Your task to perform on an android device: change keyboard looks Image 0: 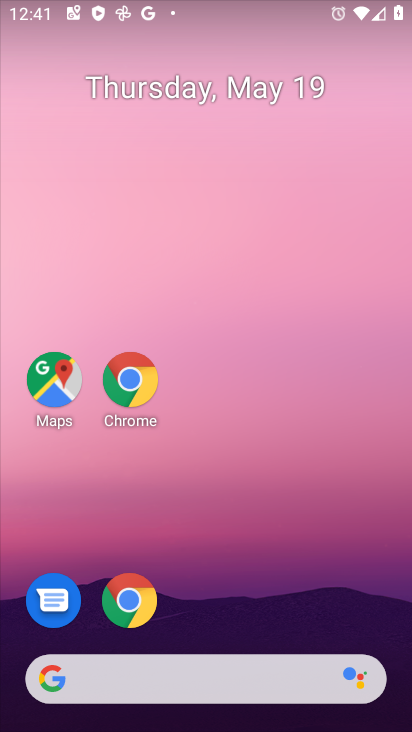
Step 0: drag from (273, 659) to (159, 256)
Your task to perform on an android device: change keyboard looks Image 1: 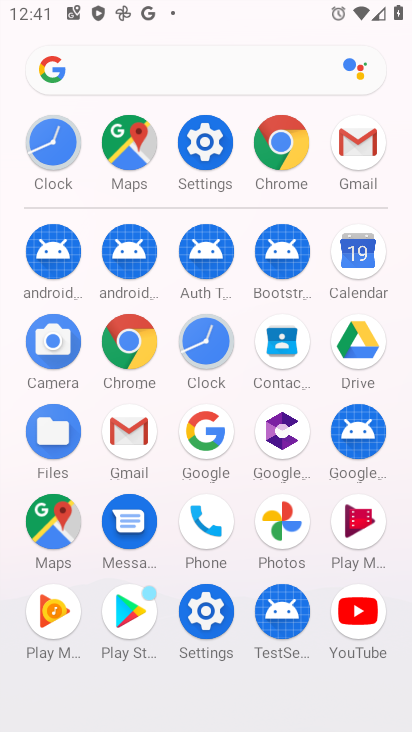
Step 1: click (206, 612)
Your task to perform on an android device: change keyboard looks Image 2: 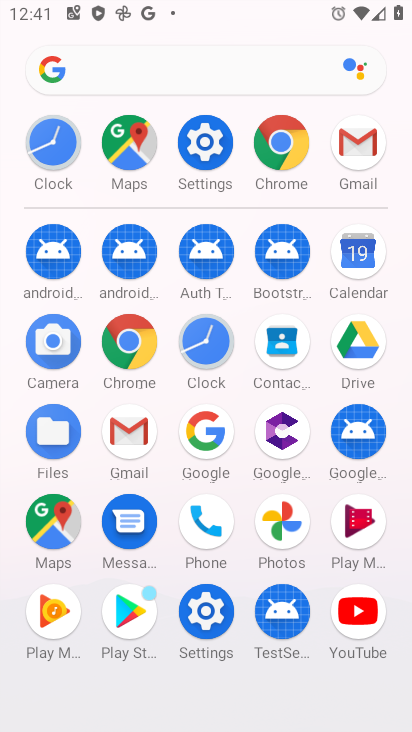
Step 2: click (208, 614)
Your task to perform on an android device: change keyboard looks Image 3: 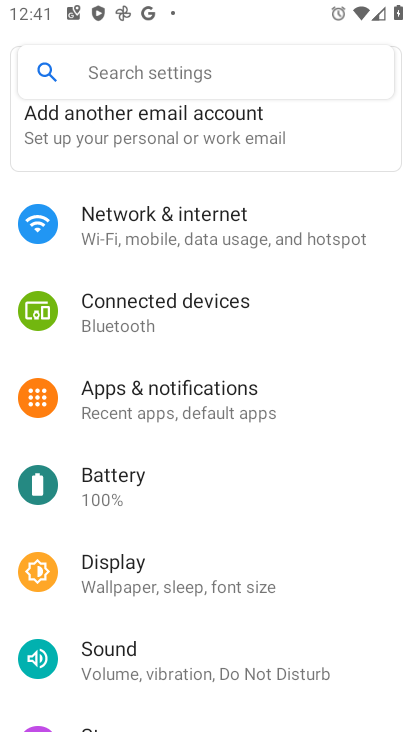
Step 3: drag from (202, 520) to (108, 253)
Your task to perform on an android device: change keyboard looks Image 4: 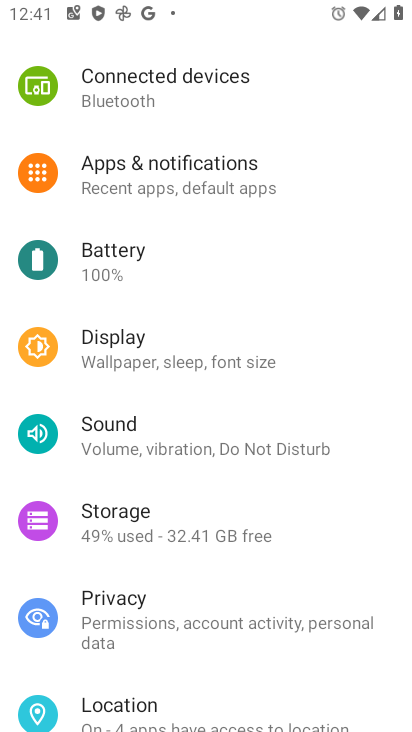
Step 4: drag from (160, 389) to (131, 203)
Your task to perform on an android device: change keyboard looks Image 5: 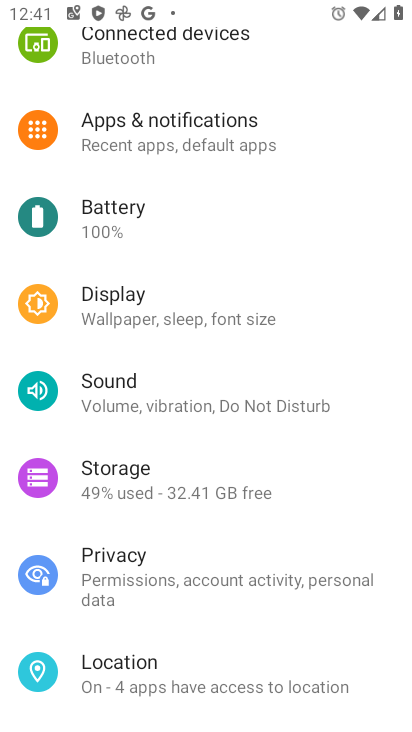
Step 5: drag from (151, 430) to (118, 127)
Your task to perform on an android device: change keyboard looks Image 6: 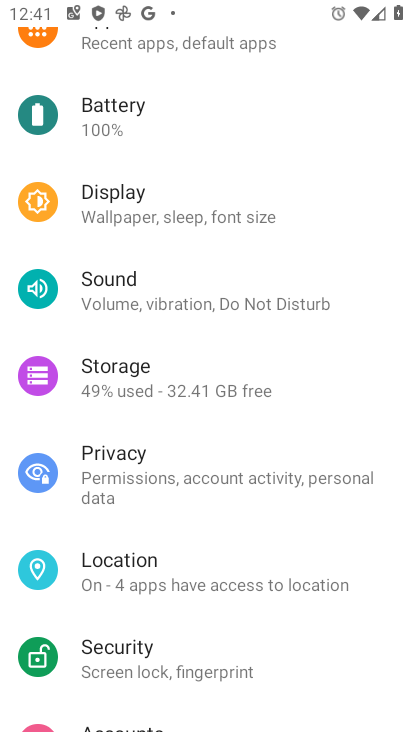
Step 6: drag from (167, 356) to (156, 135)
Your task to perform on an android device: change keyboard looks Image 7: 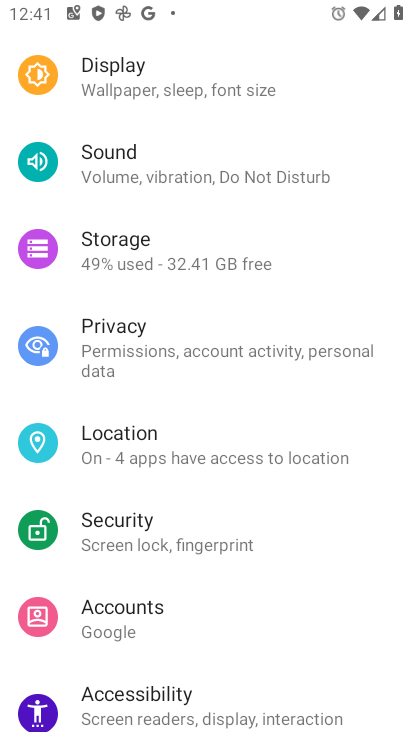
Step 7: drag from (179, 403) to (176, 144)
Your task to perform on an android device: change keyboard looks Image 8: 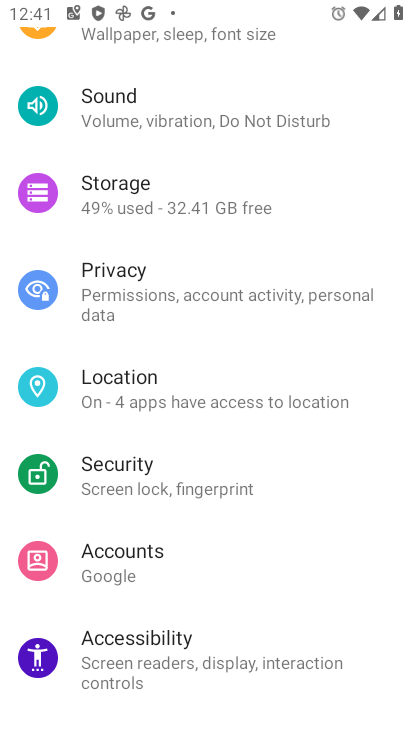
Step 8: drag from (244, 408) to (216, 135)
Your task to perform on an android device: change keyboard looks Image 9: 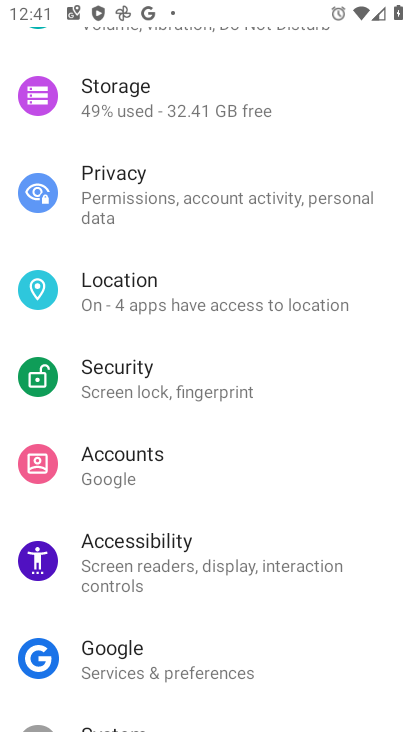
Step 9: drag from (197, 310) to (198, 100)
Your task to perform on an android device: change keyboard looks Image 10: 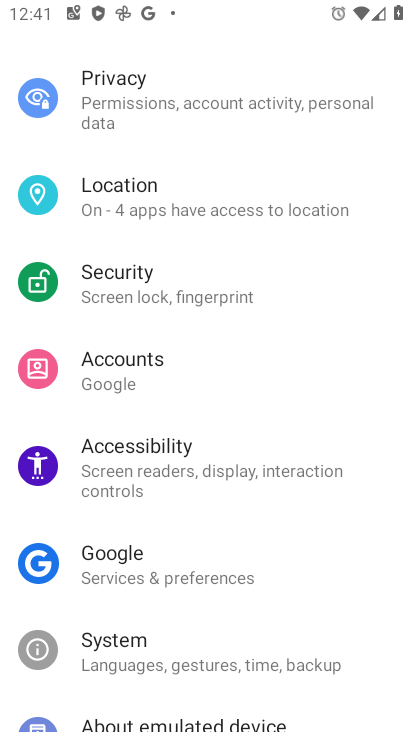
Step 10: drag from (177, 346) to (157, 121)
Your task to perform on an android device: change keyboard looks Image 11: 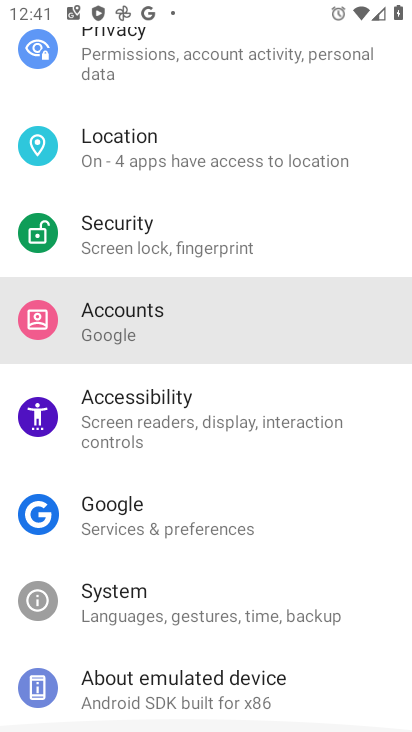
Step 11: drag from (173, 431) to (137, 180)
Your task to perform on an android device: change keyboard looks Image 12: 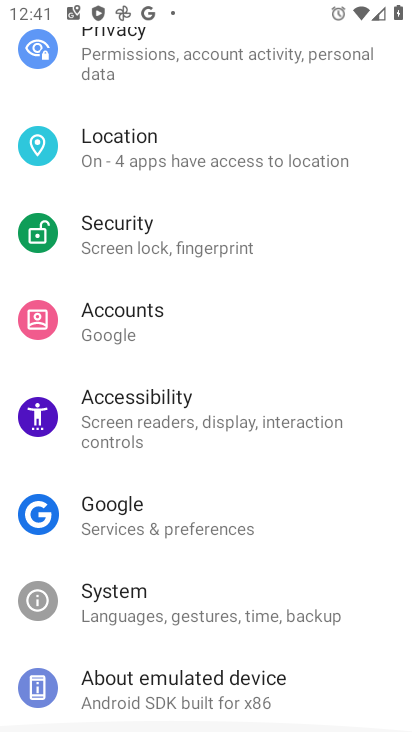
Step 12: drag from (178, 485) to (171, 150)
Your task to perform on an android device: change keyboard looks Image 13: 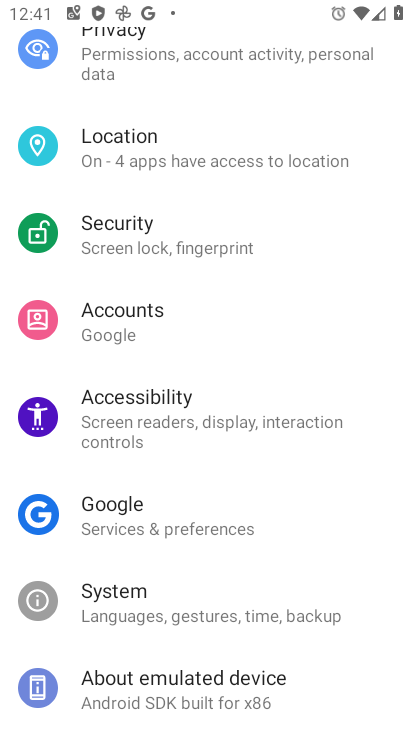
Step 13: click (172, 690)
Your task to perform on an android device: change keyboard looks Image 14: 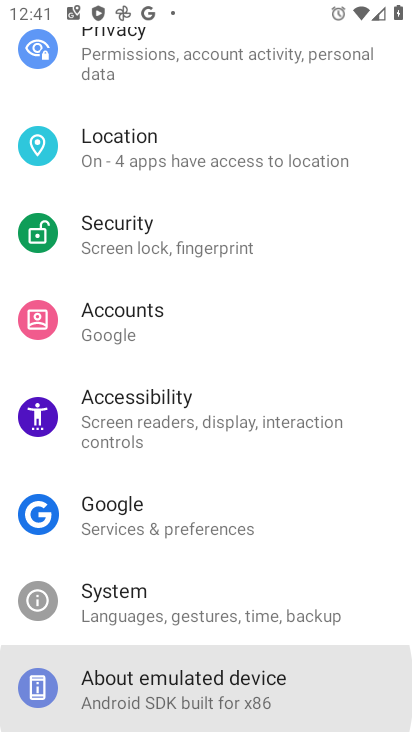
Step 14: click (172, 690)
Your task to perform on an android device: change keyboard looks Image 15: 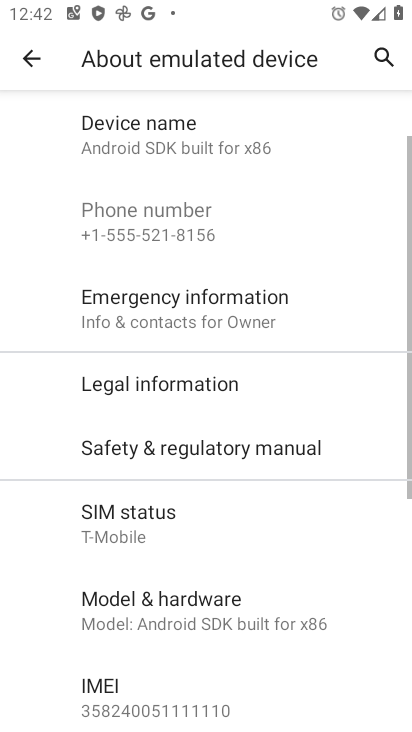
Step 15: click (37, 55)
Your task to perform on an android device: change keyboard looks Image 16: 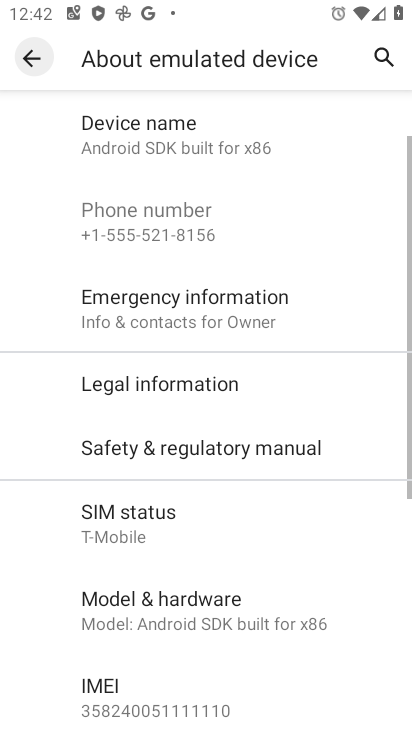
Step 16: click (37, 55)
Your task to perform on an android device: change keyboard looks Image 17: 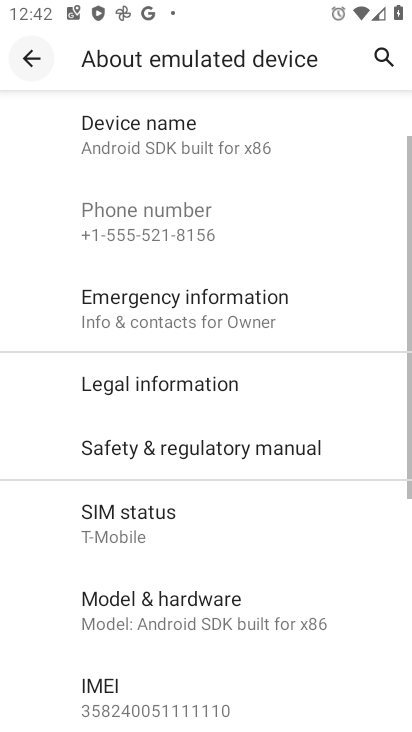
Step 17: click (37, 55)
Your task to perform on an android device: change keyboard looks Image 18: 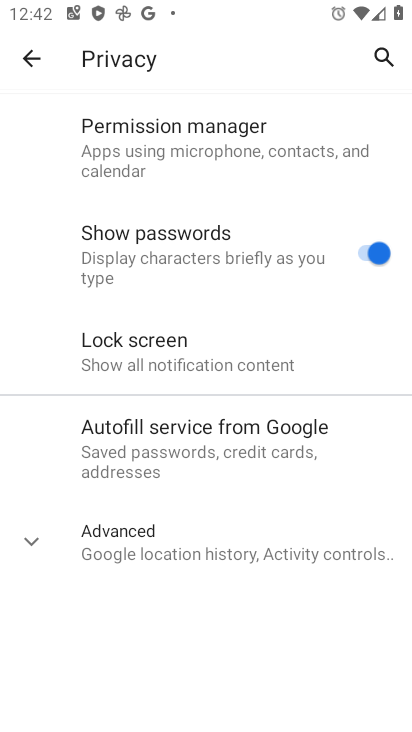
Step 18: click (29, 59)
Your task to perform on an android device: change keyboard looks Image 19: 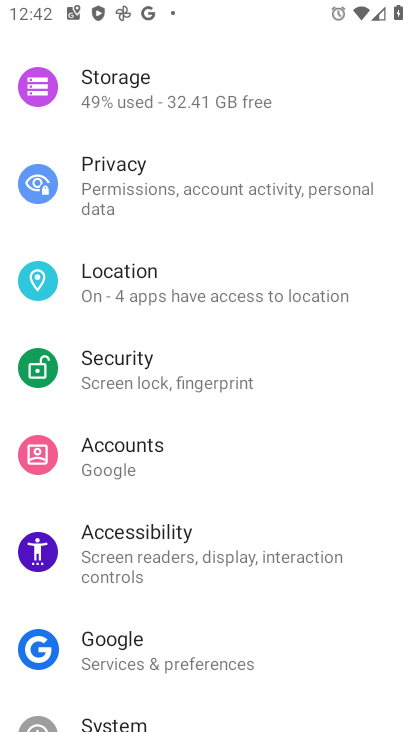
Step 19: drag from (173, 520) to (177, 173)
Your task to perform on an android device: change keyboard looks Image 20: 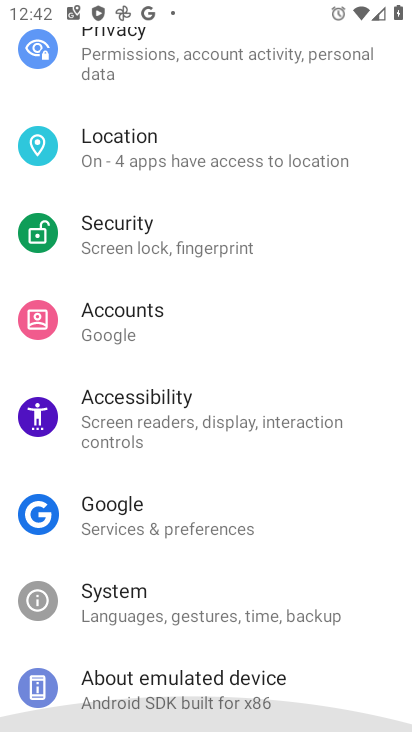
Step 20: drag from (187, 448) to (167, 230)
Your task to perform on an android device: change keyboard looks Image 21: 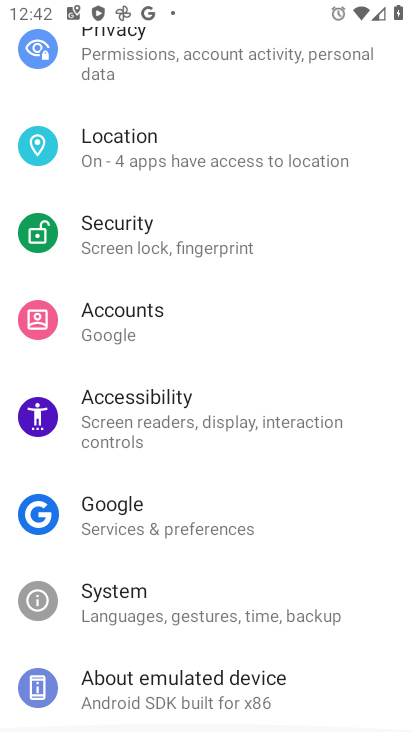
Step 21: drag from (208, 506) to (144, 200)
Your task to perform on an android device: change keyboard looks Image 22: 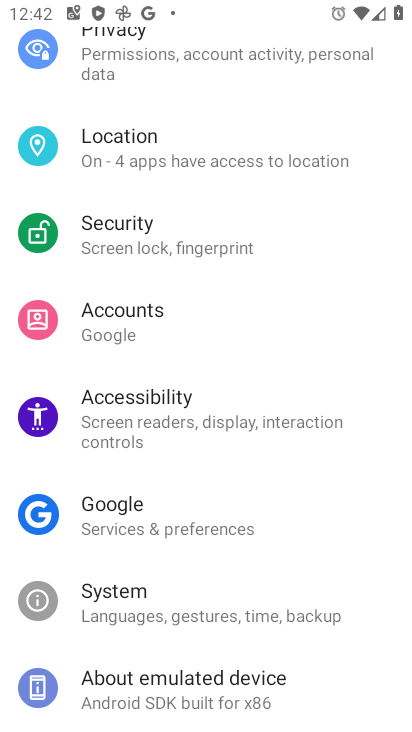
Step 22: click (112, 609)
Your task to perform on an android device: change keyboard looks Image 23: 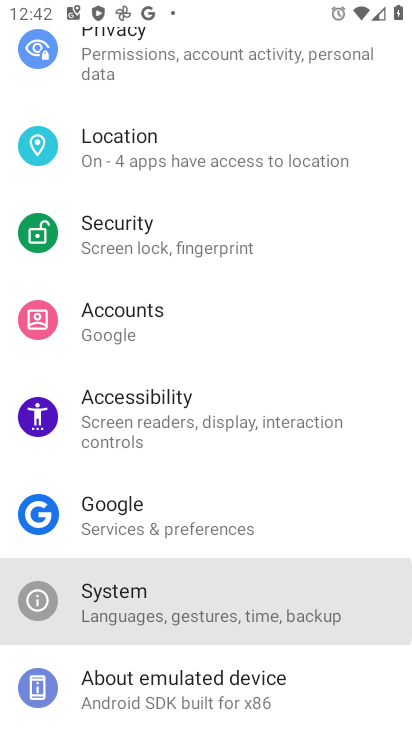
Step 23: click (110, 602)
Your task to perform on an android device: change keyboard looks Image 24: 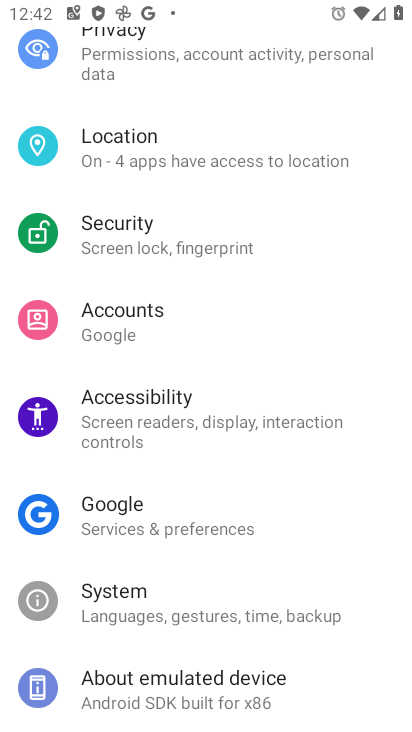
Step 24: click (115, 599)
Your task to perform on an android device: change keyboard looks Image 25: 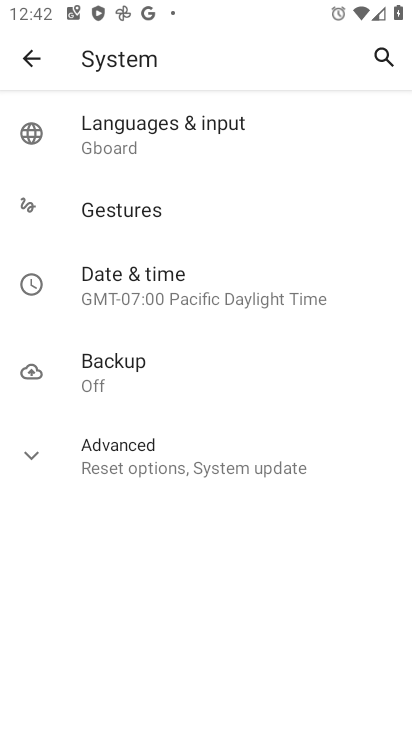
Step 25: click (128, 144)
Your task to perform on an android device: change keyboard looks Image 26: 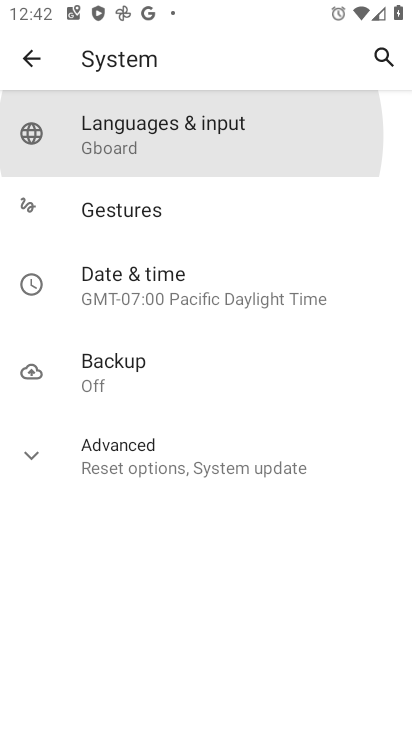
Step 26: click (128, 144)
Your task to perform on an android device: change keyboard looks Image 27: 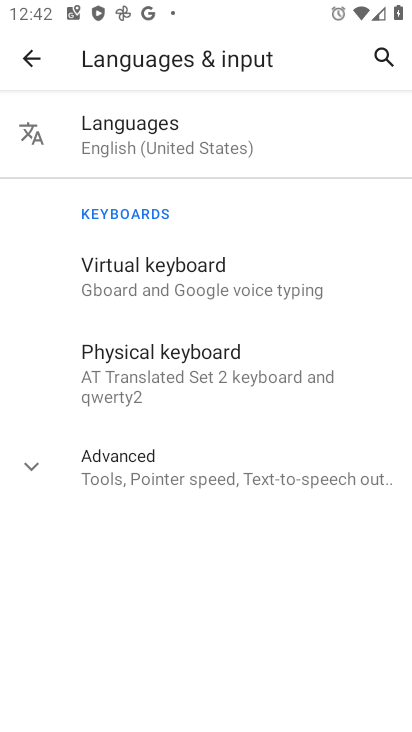
Step 27: click (133, 273)
Your task to perform on an android device: change keyboard looks Image 28: 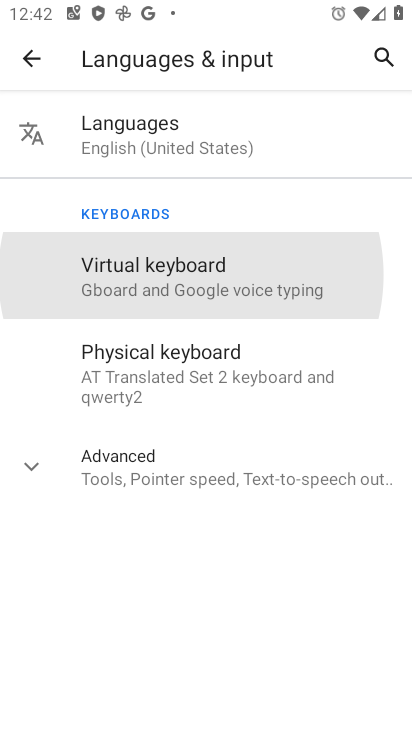
Step 28: click (138, 273)
Your task to perform on an android device: change keyboard looks Image 29: 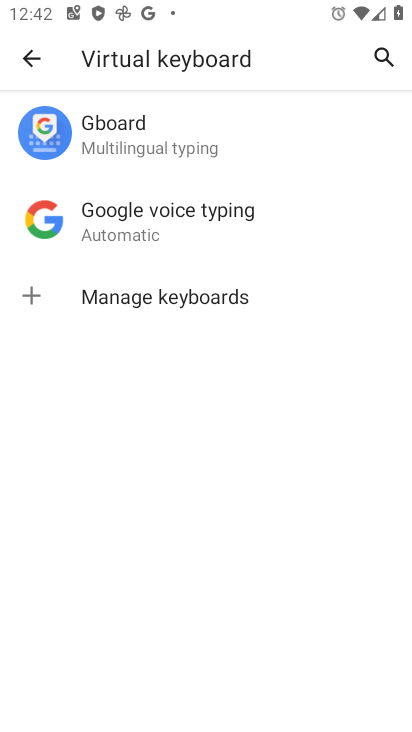
Step 29: click (86, 151)
Your task to perform on an android device: change keyboard looks Image 30: 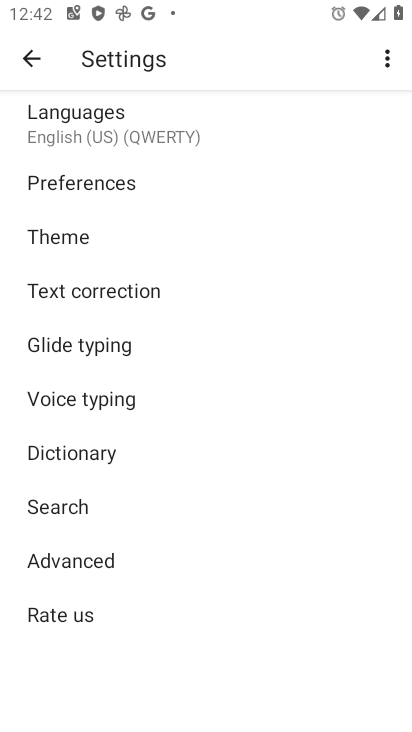
Step 30: click (57, 245)
Your task to perform on an android device: change keyboard looks Image 31: 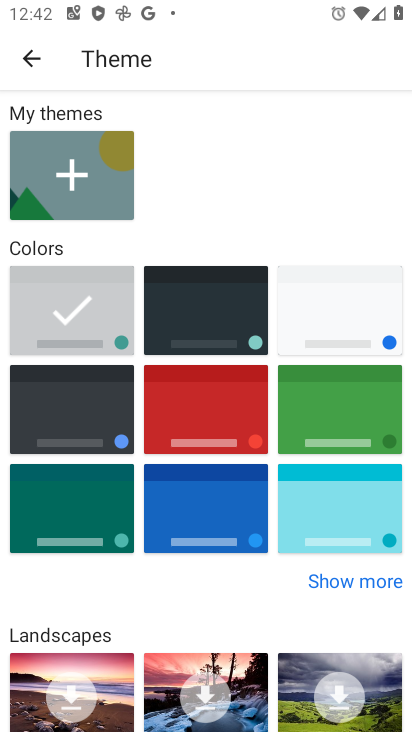
Step 31: click (59, 409)
Your task to perform on an android device: change keyboard looks Image 32: 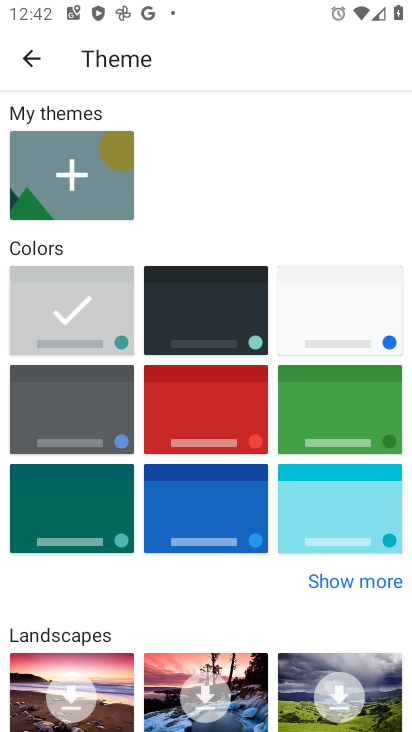
Step 32: click (63, 418)
Your task to perform on an android device: change keyboard looks Image 33: 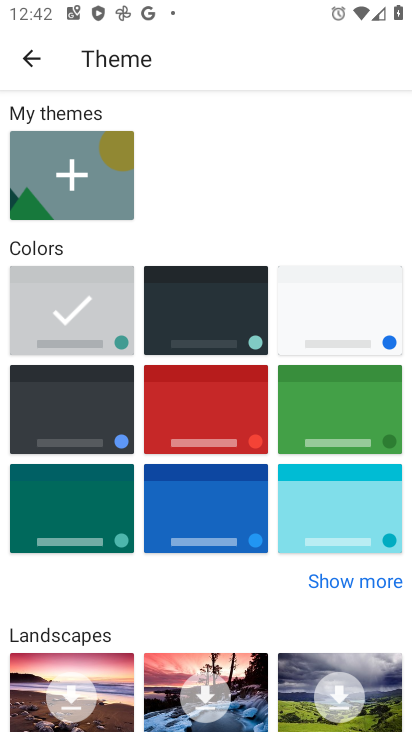
Step 33: click (70, 433)
Your task to perform on an android device: change keyboard looks Image 34: 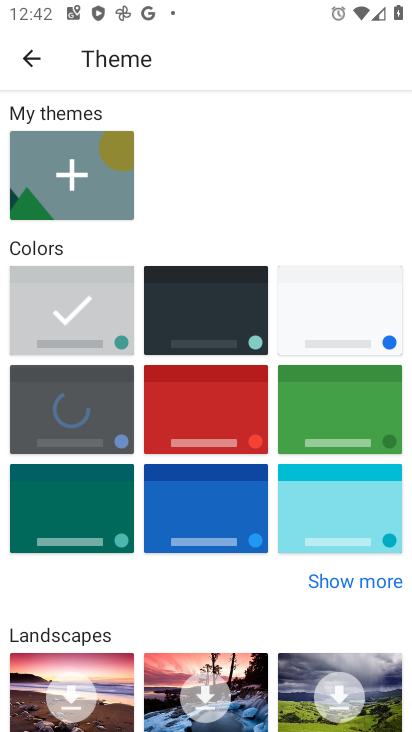
Step 34: click (73, 431)
Your task to perform on an android device: change keyboard looks Image 35: 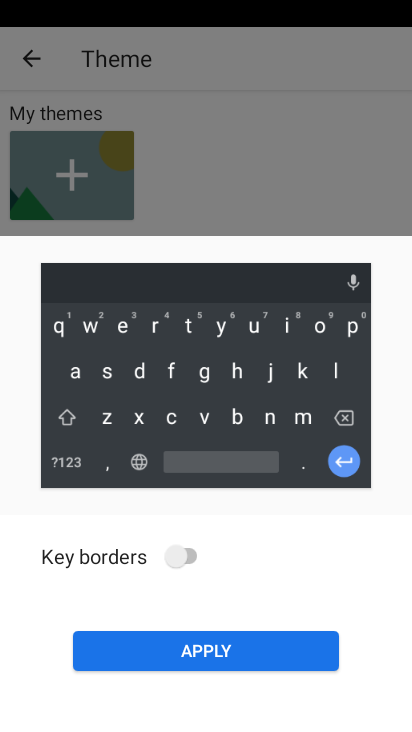
Step 35: click (225, 651)
Your task to perform on an android device: change keyboard looks Image 36: 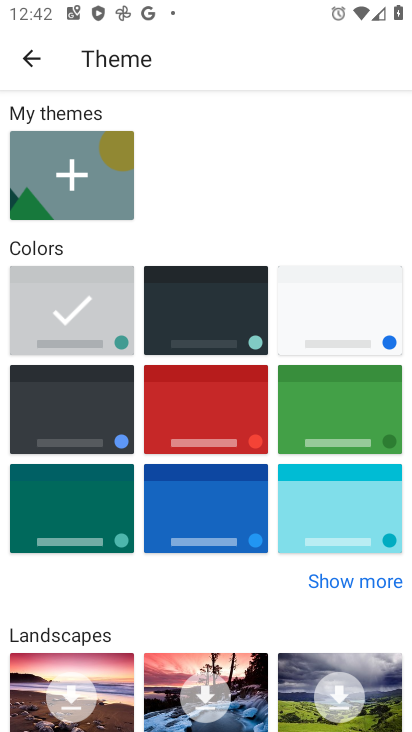
Step 36: click (224, 650)
Your task to perform on an android device: change keyboard looks Image 37: 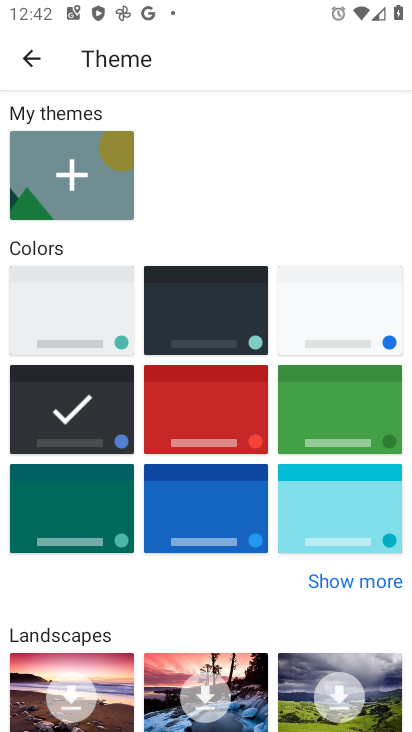
Step 37: task complete